Your task to perform on an android device: Open the map Image 0: 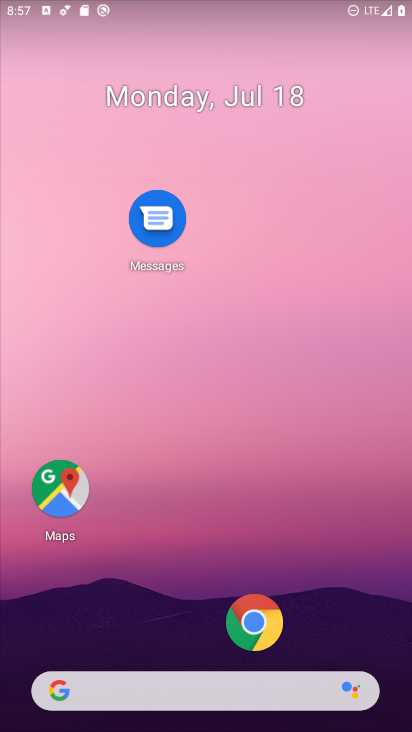
Step 0: drag from (170, 711) to (187, 194)
Your task to perform on an android device: Open the map Image 1: 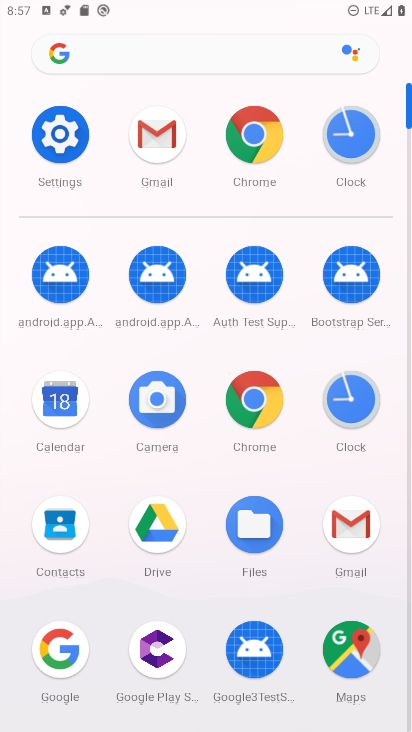
Step 1: click (357, 679)
Your task to perform on an android device: Open the map Image 2: 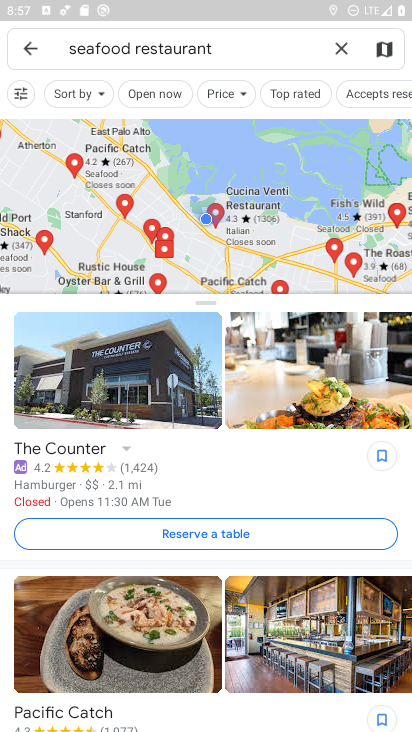
Step 2: task complete